Your task to perform on an android device: Search for energizer triple a on target.com, select the first entry, and add it to the cart. Image 0: 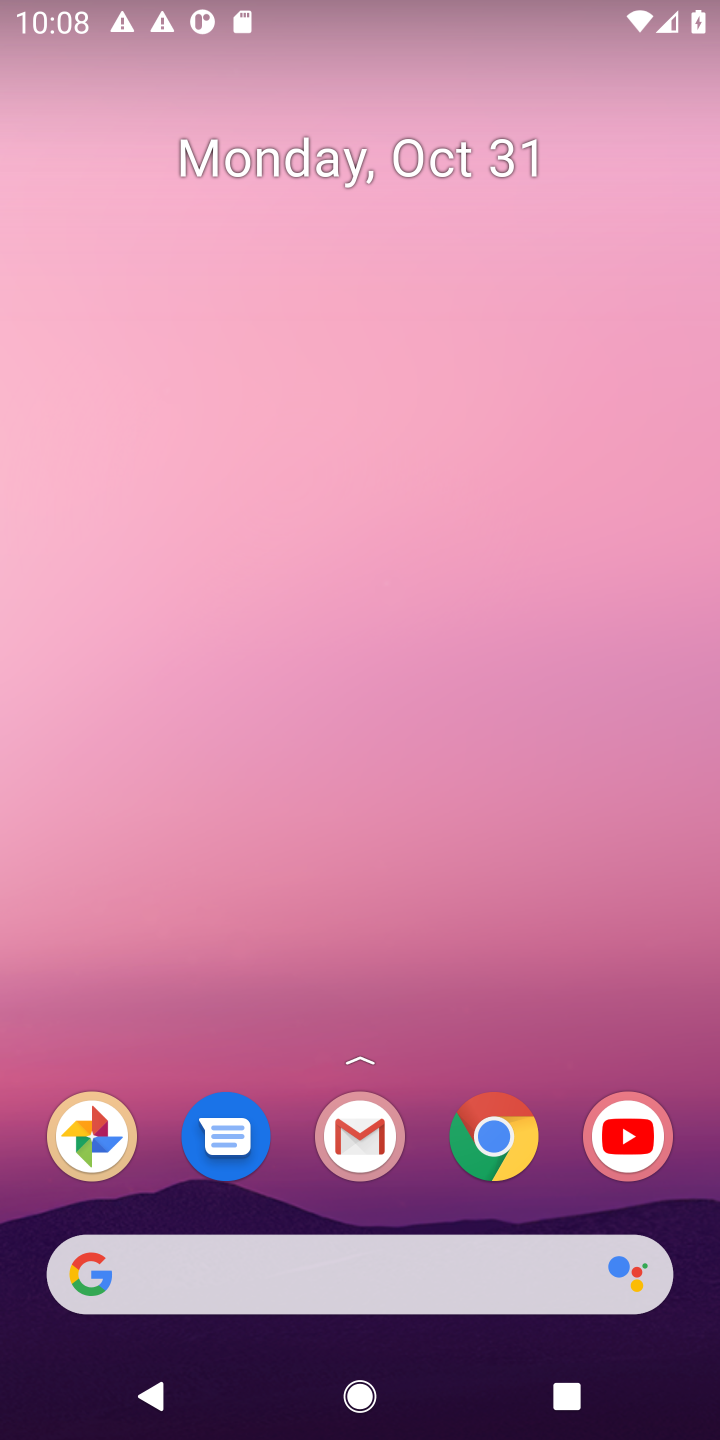
Step 0: press home button
Your task to perform on an android device: Search for energizer triple a on target.com, select the first entry, and add it to the cart. Image 1: 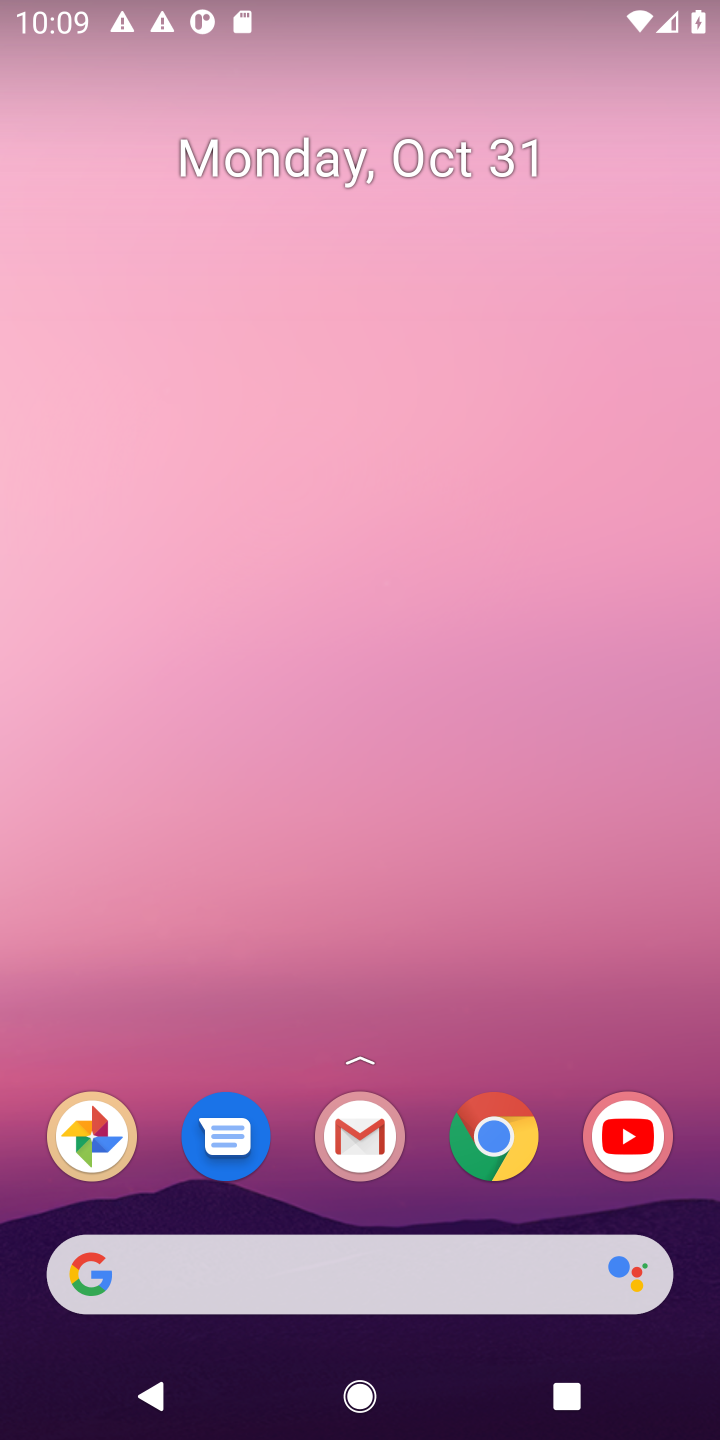
Step 1: click (151, 1287)
Your task to perform on an android device: Search for energizer triple a on target.com, select the first entry, and add it to the cart. Image 2: 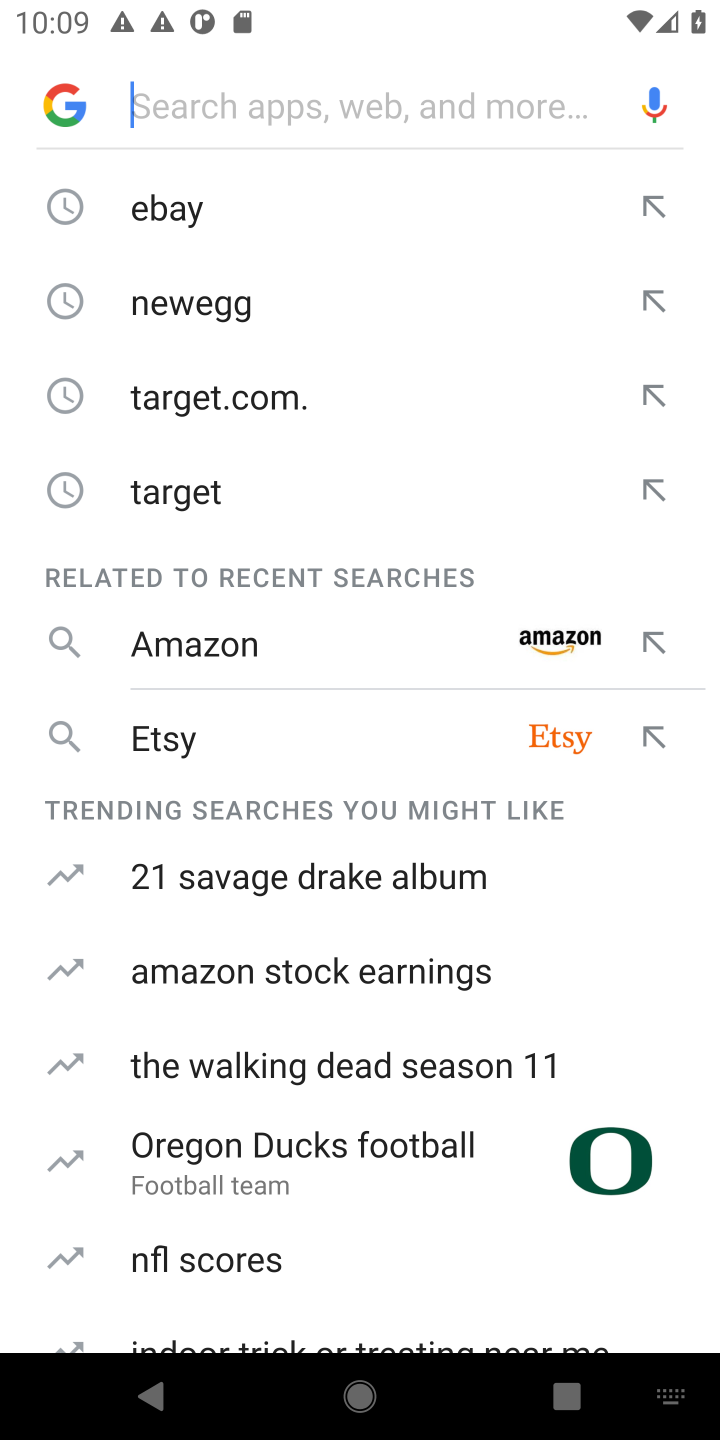
Step 2: type "target.com"
Your task to perform on an android device: Search for energizer triple a on target.com, select the first entry, and add it to the cart. Image 3: 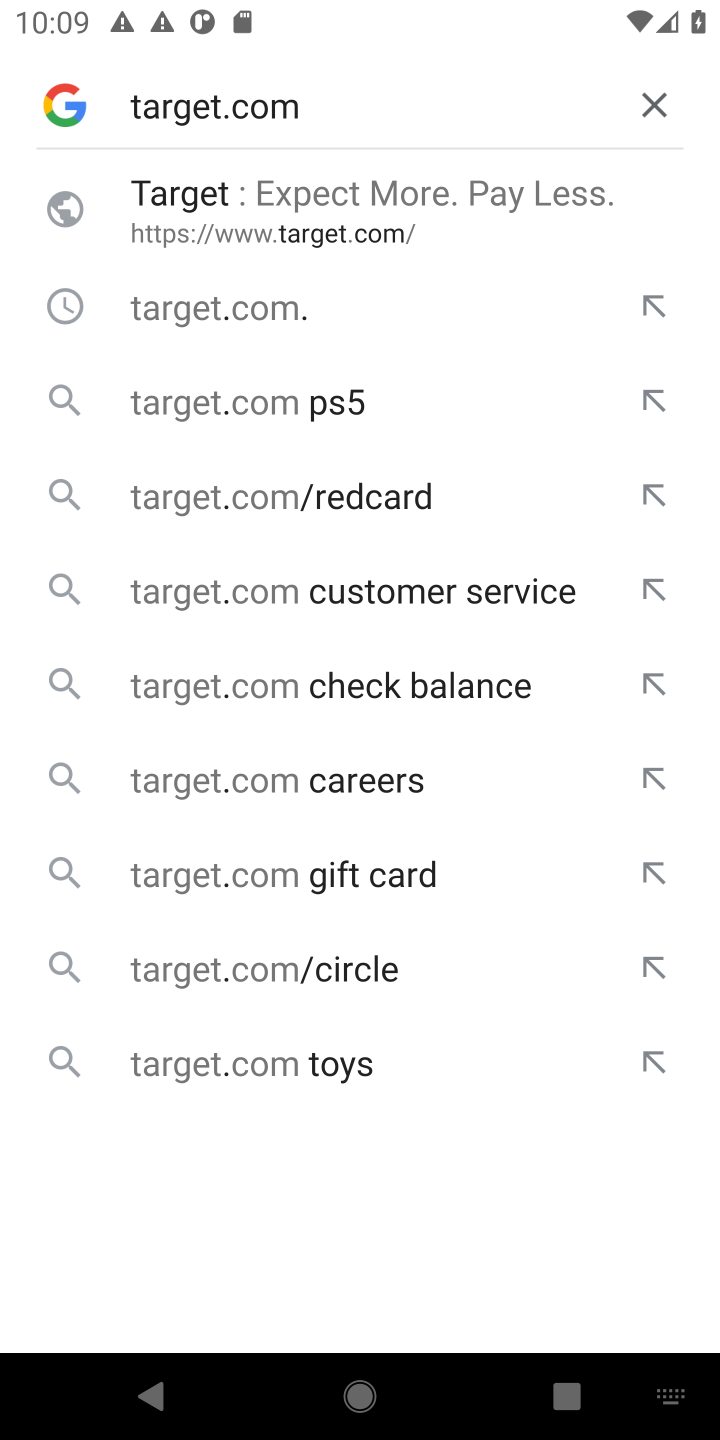
Step 3: press enter
Your task to perform on an android device: Search for energizer triple a on target.com, select the first entry, and add it to the cart. Image 4: 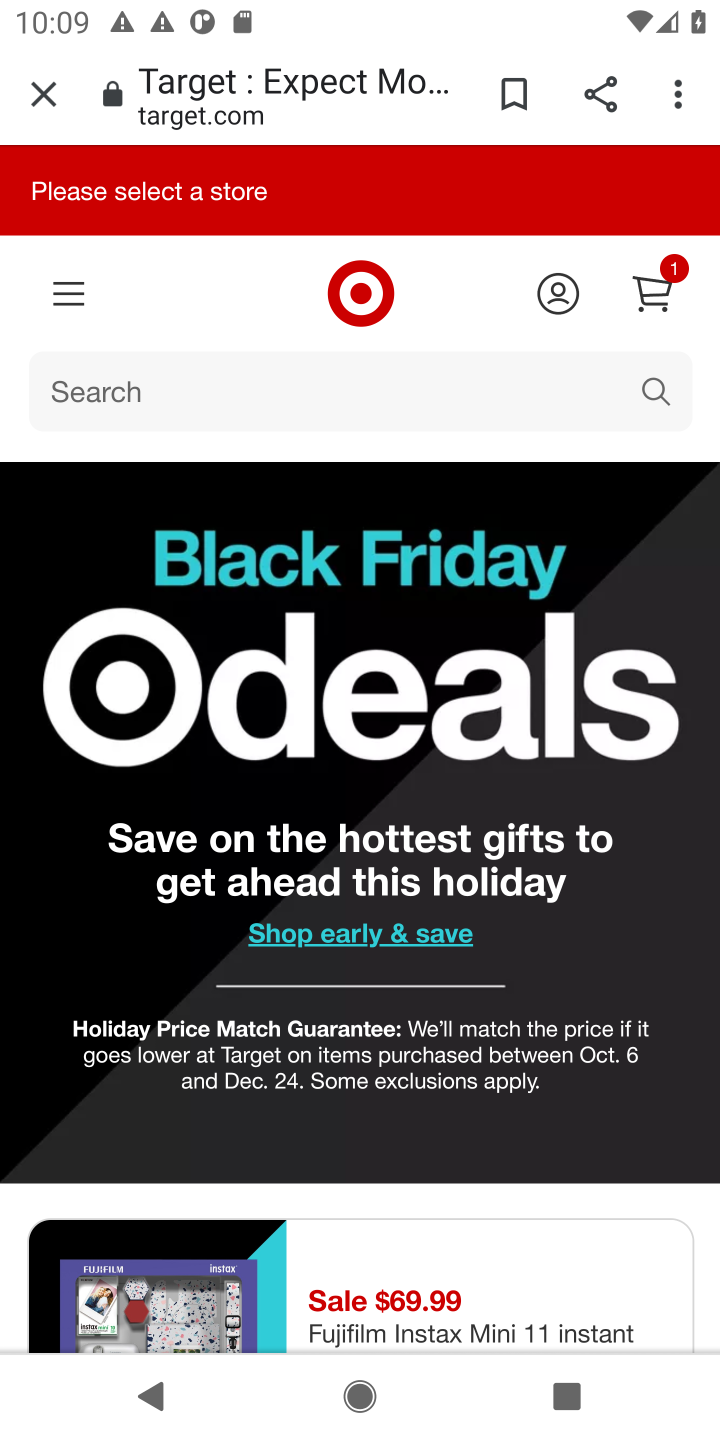
Step 4: click (101, 387)
Your task to perform on an android device: Search for energizer triple a on target.com, select the first entry, and add it to the cart. Image 5: 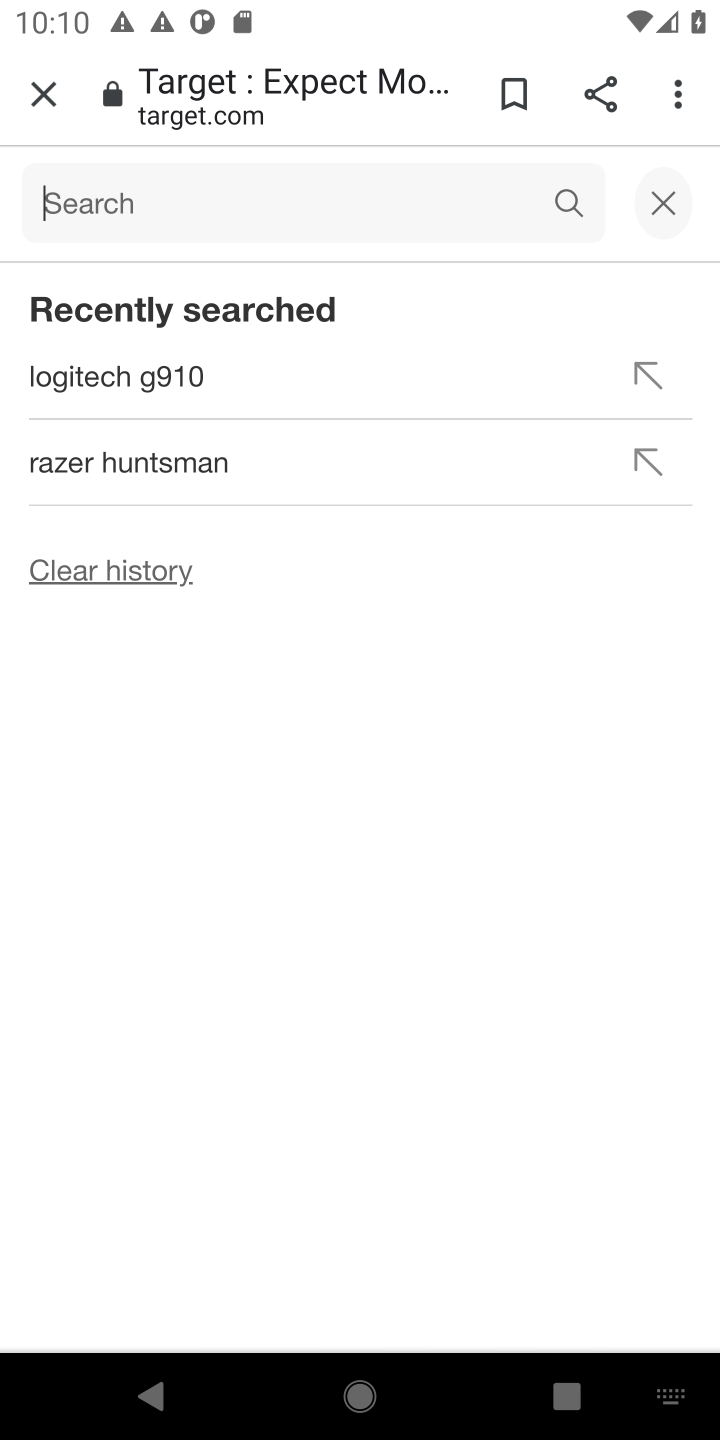
Step 5: type "energizer triple"
Your task to perform on an android device: Search for energizer triple a on target.com, select the first entry, and add it to the cart. Image 6: 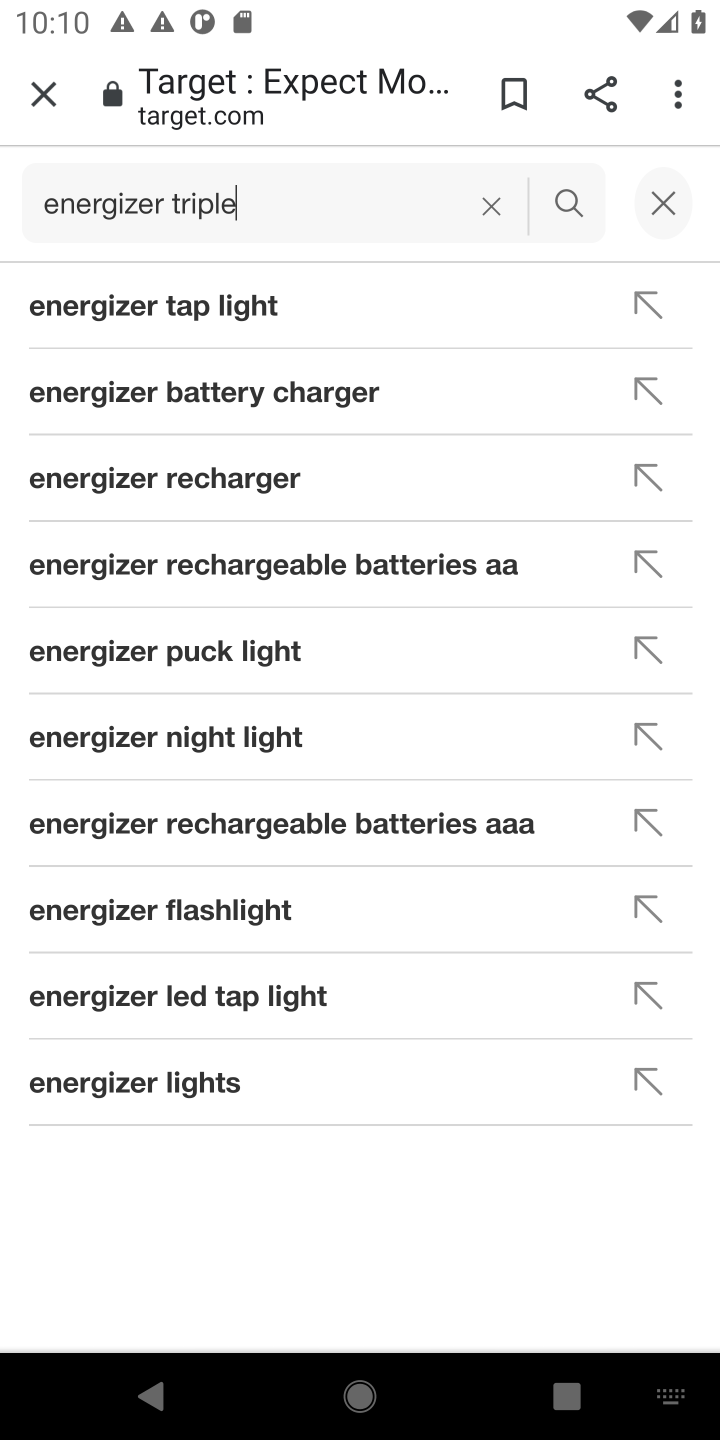
Step 6: click (578, 190)
Your task to perform on an android device: Search for energizer triple a on target.com, select the first entry, and add it to the cart. Image 7: 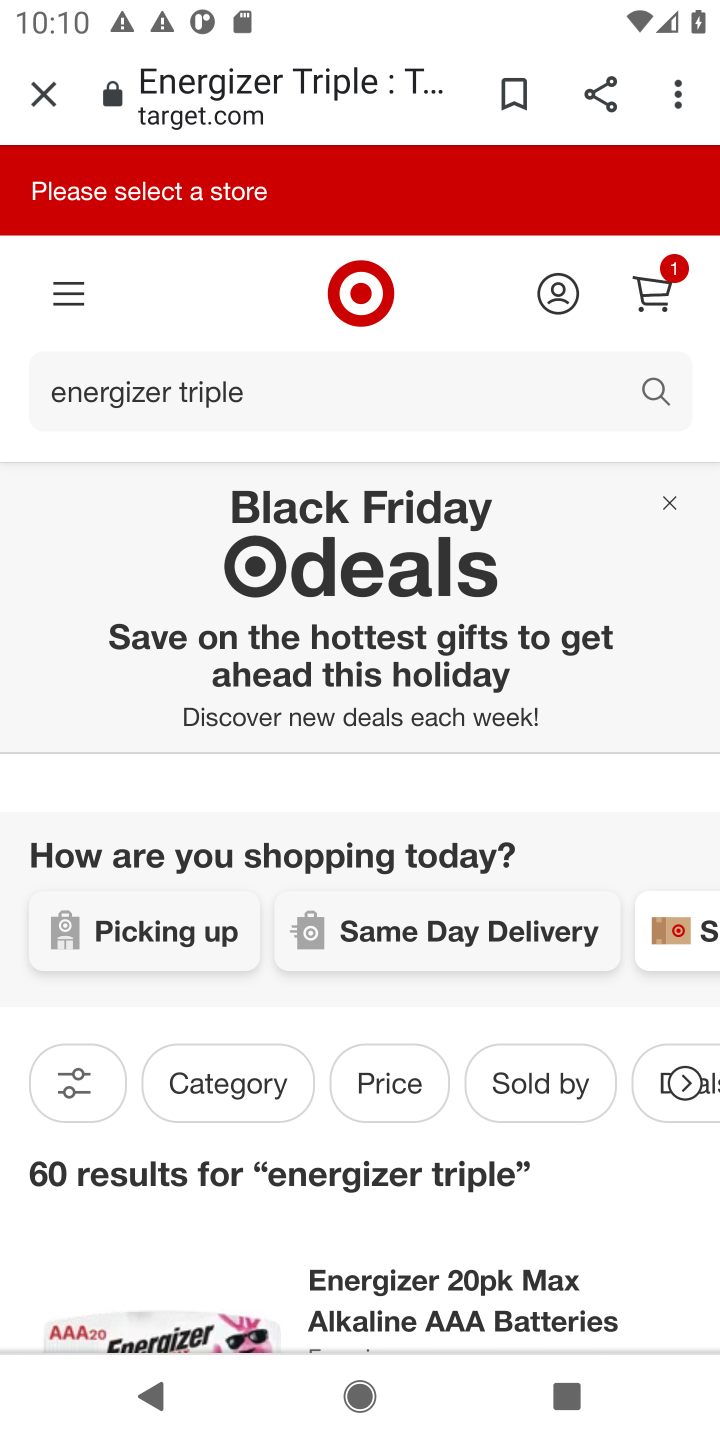
Step 7: drag from (481, 1209) to (486, 783)
Your task to perform on an android device: Search for energizer triple a on target.com, select the first entry, and add it to the cart. Image 8: 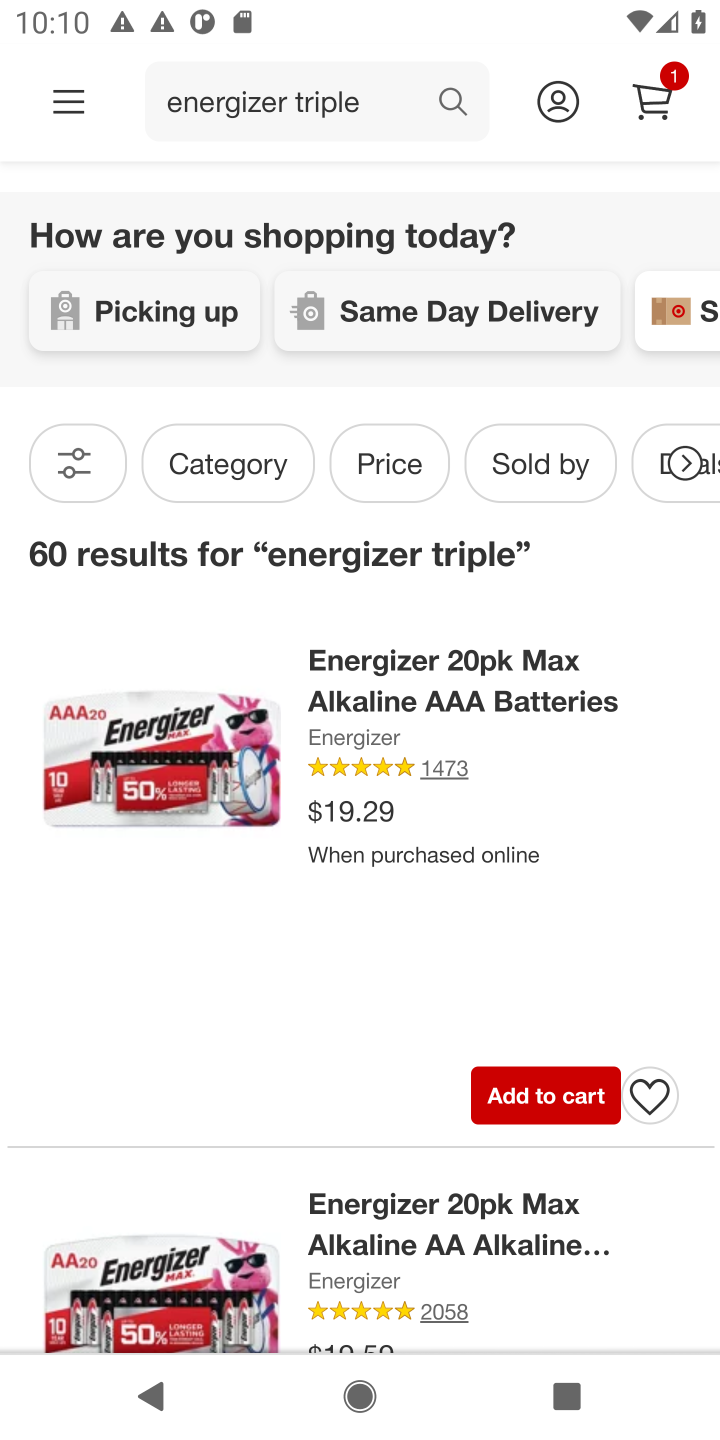
Step 8: drag from (384, 1293) to (419, 811)
Your task to perform on an android device: Search for energizer triple a on target.com, select the first entry, and add it to the cart. Image 9: 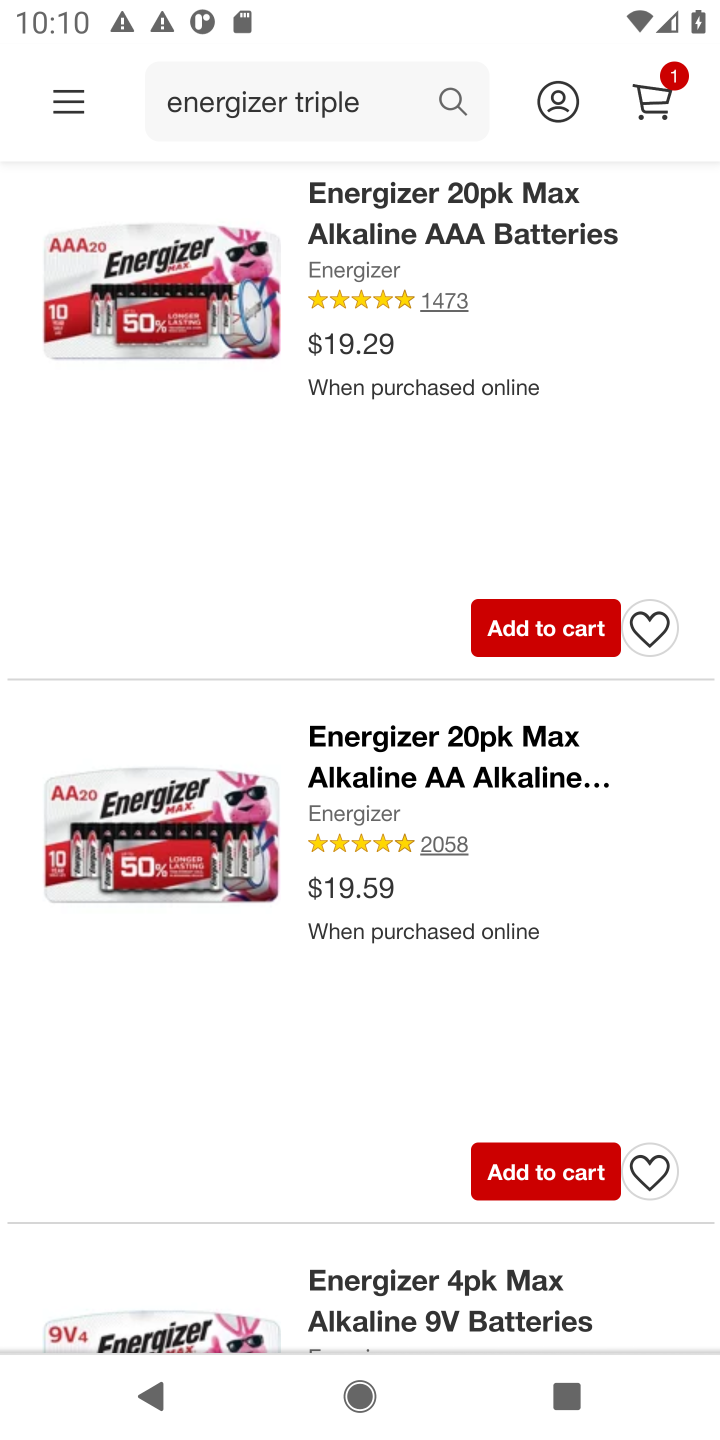
Step 9: click (451, 218)
Your task to perform on an android device: Search for energizer triple a on target.com, select the first entry, and add it to the cart. Image 10: 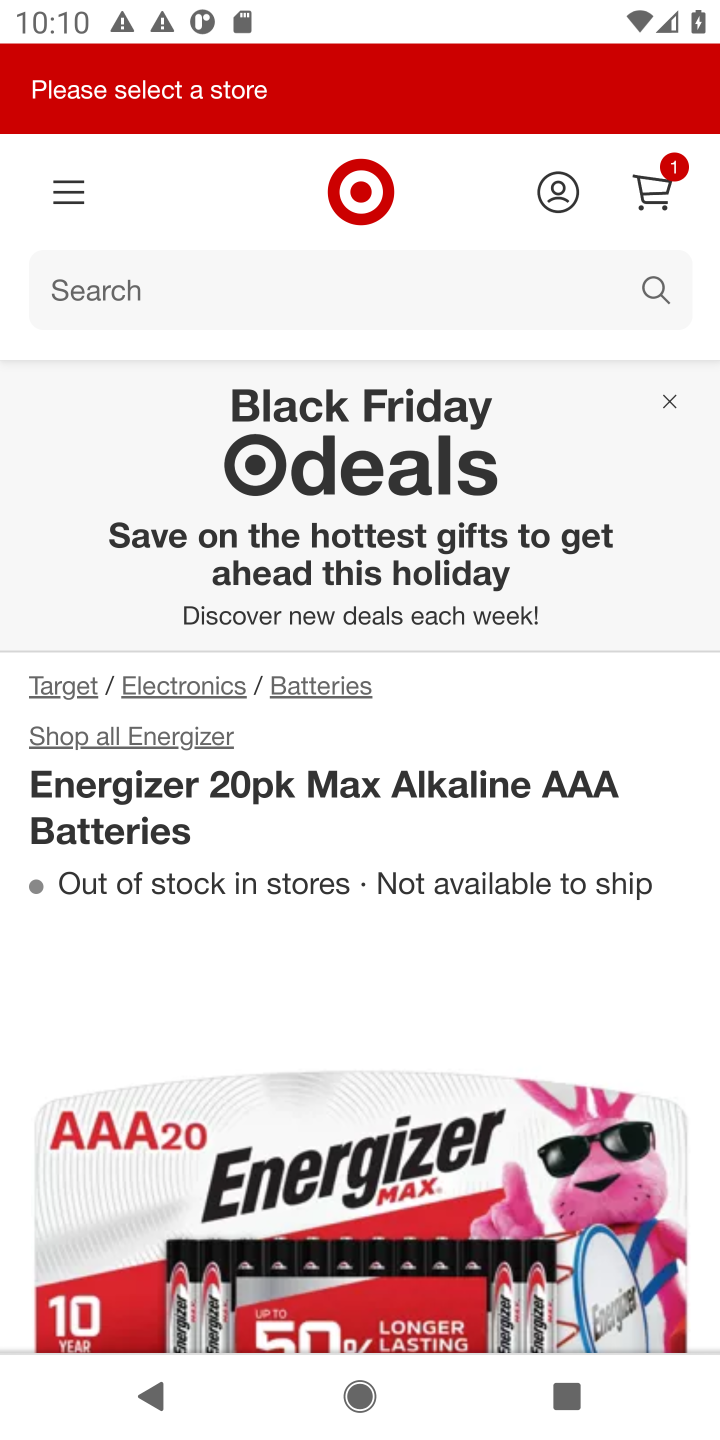
Step 10: drag from (385, 1047) to (383, 546)
Your task to perform on an android device: Search for energizer triple a on target.com, select the first entry, and add it to the cart. Image 11: 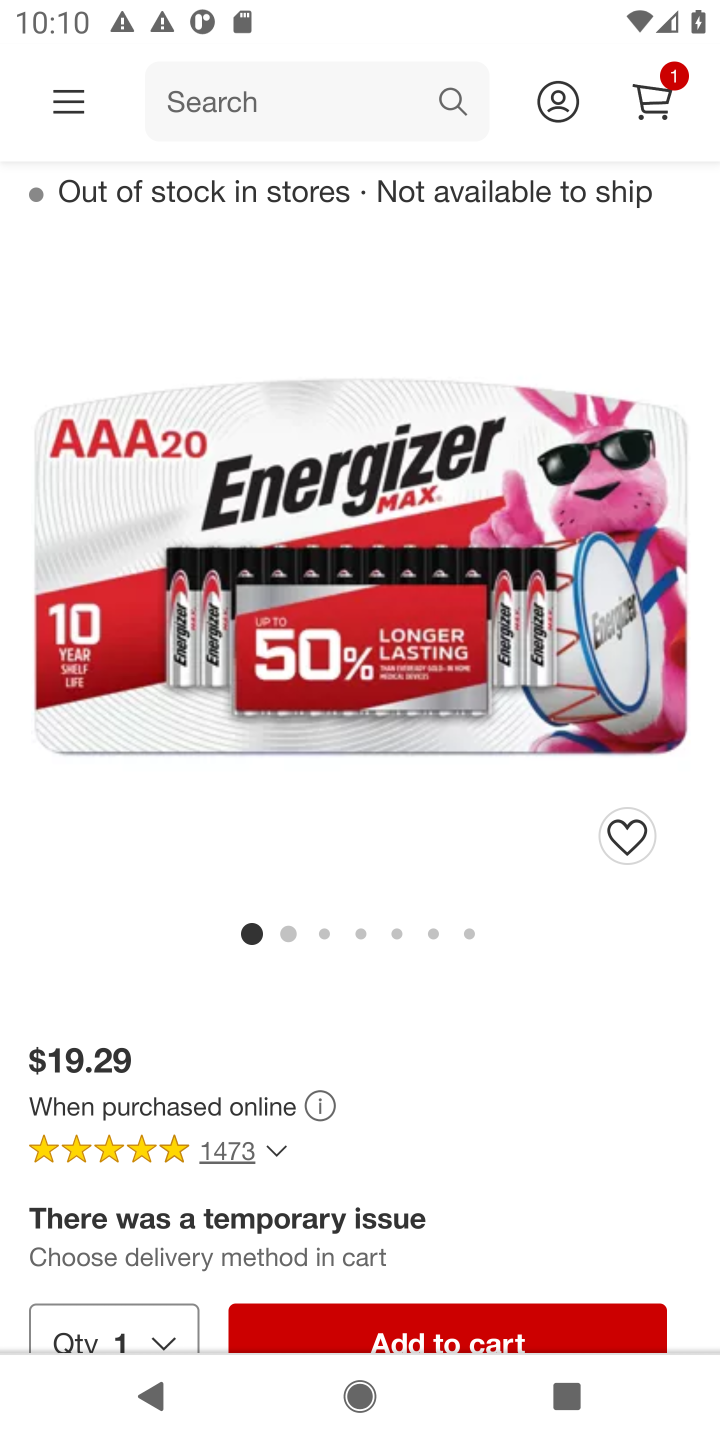
Step 11: drag from (370, 1108) to (367, 661)
Your task to perform on an android device: Search for energizer triple a on target.com, select the first entry, and add it to the cart. Image 12: 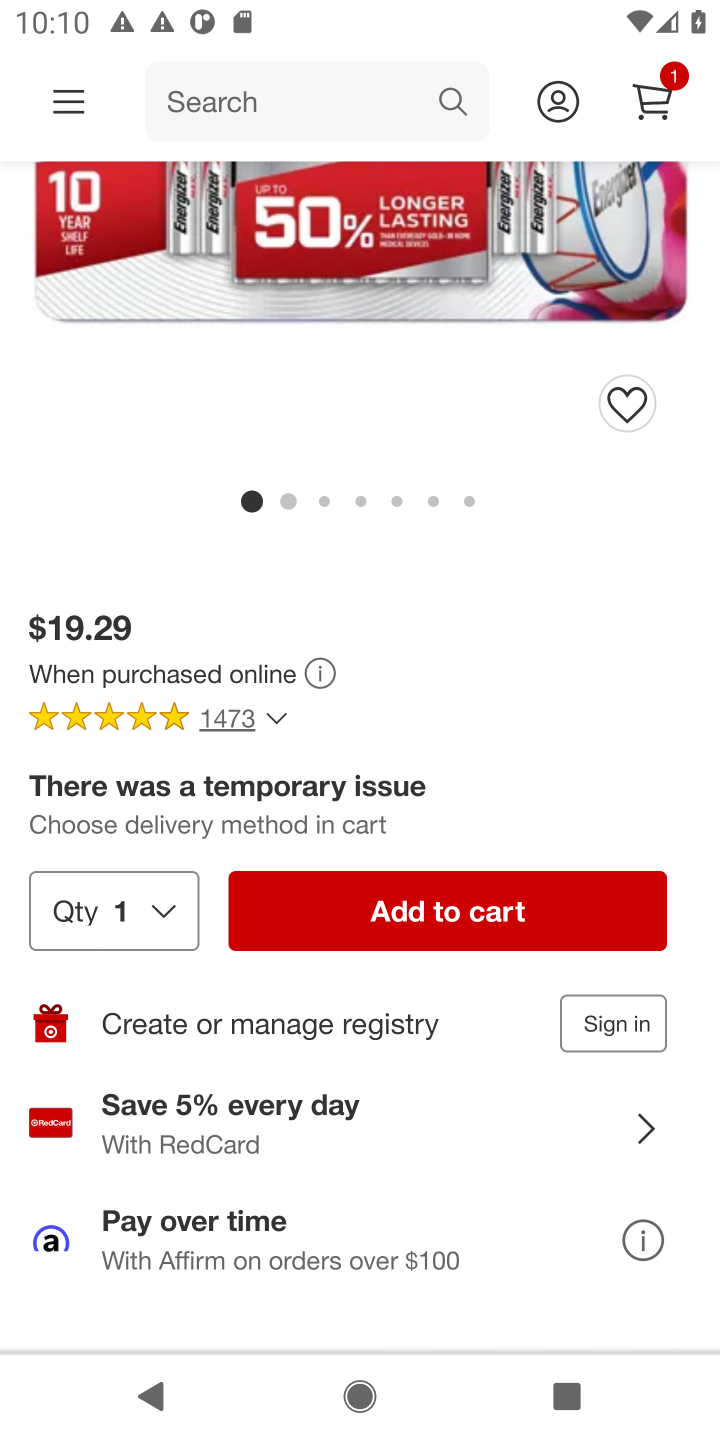
Step 12: click (470, 900)
Your task to perform on an android device: Search for energizer triple a on target.com, select the first entry, and add it to the cart. Image 13: 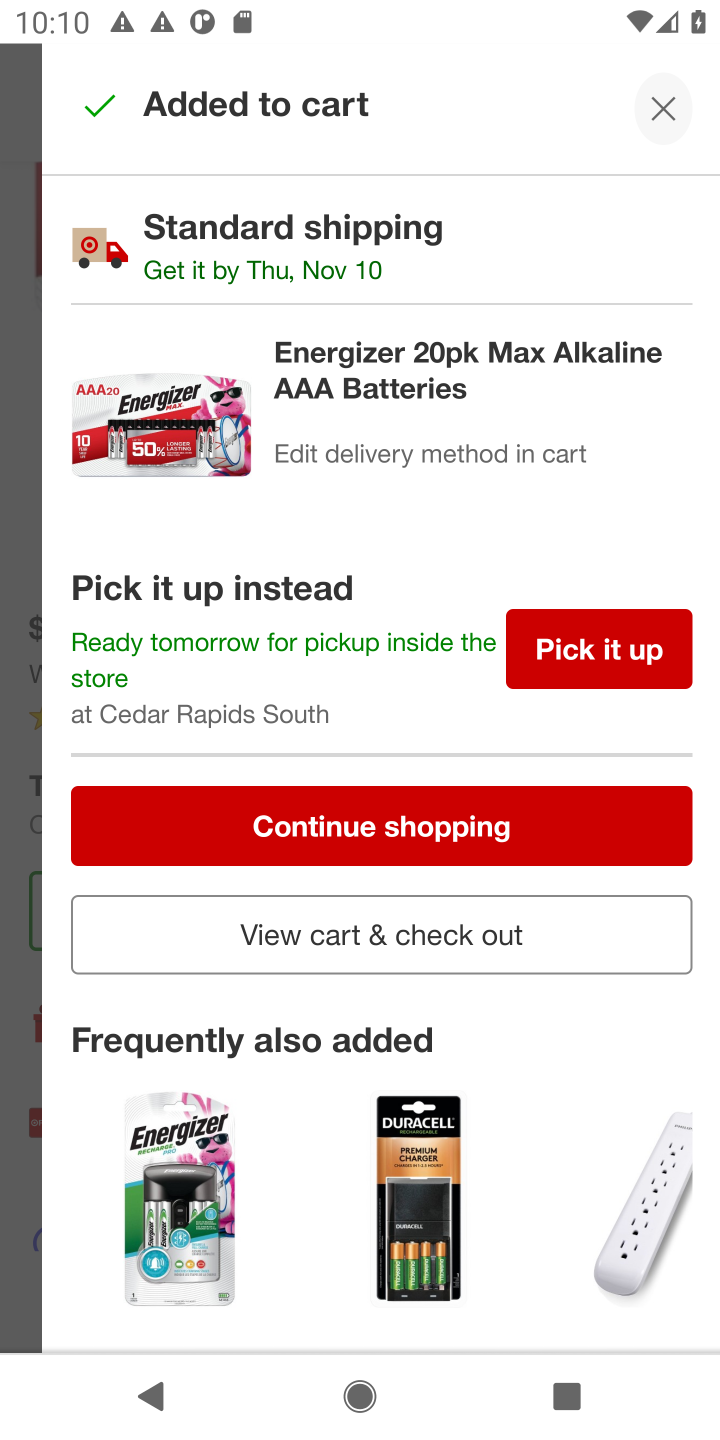
Step 13: task complete